Your task to perform on an android device: turn notification dots on Image 0: 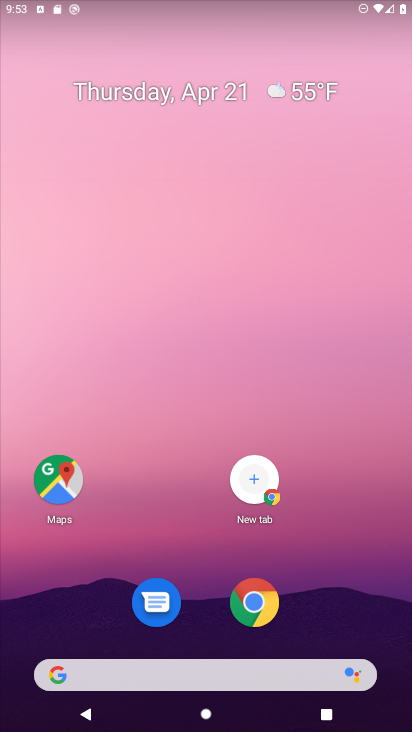
Step 0: drag from (194, 643) to (166, 18)
Your task to perform on an android device: turn notification dots on Image 1: 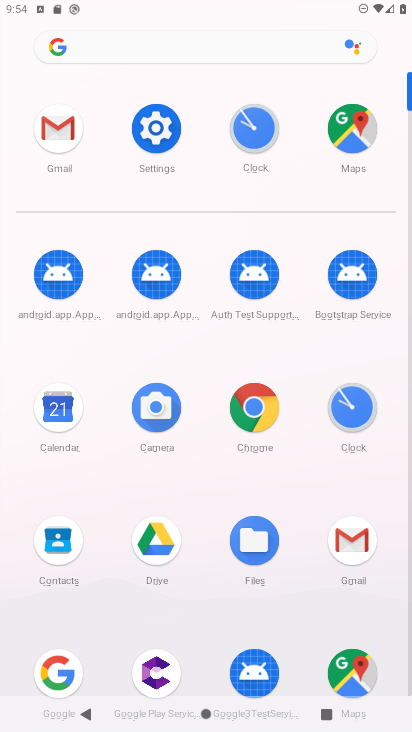
Step 1: click (158, 116)
Your task to perform on an android device: turn notification dots on Image 2: 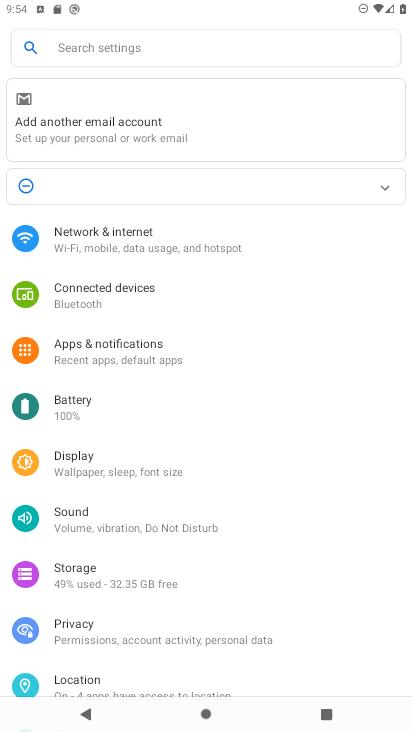
Step 2: click (133, 373)
Your task to perform on an android device: turn notification dots on Image 3: 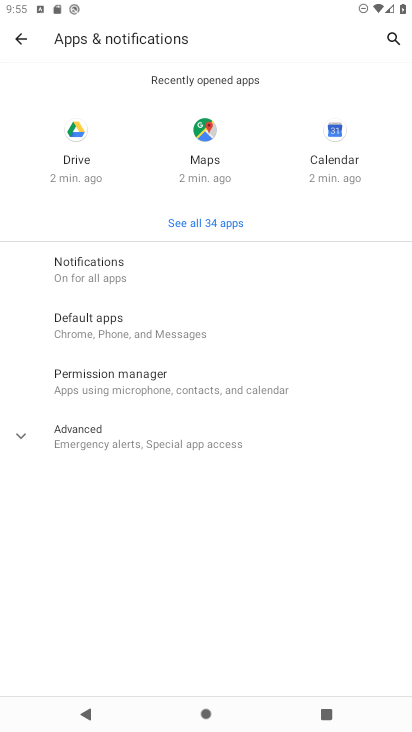
Step 3: click (133, 272)
Your task to perform on an android device: turn notification dots on Image 4: 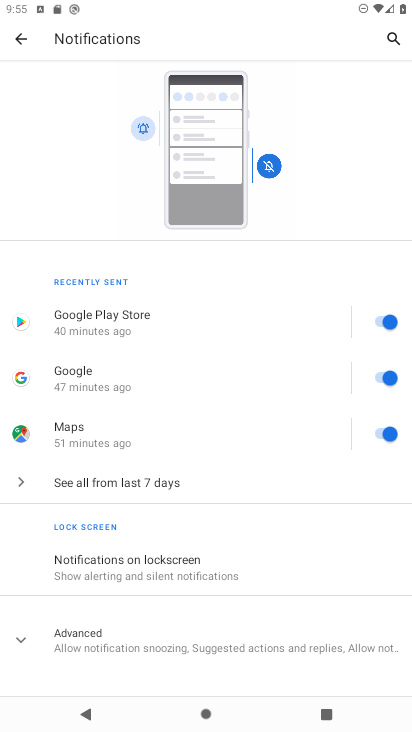
Step 4: drag from (174, 560) to (214, 133)
Your task to perform on an android device: turn notification dots on Image 5: 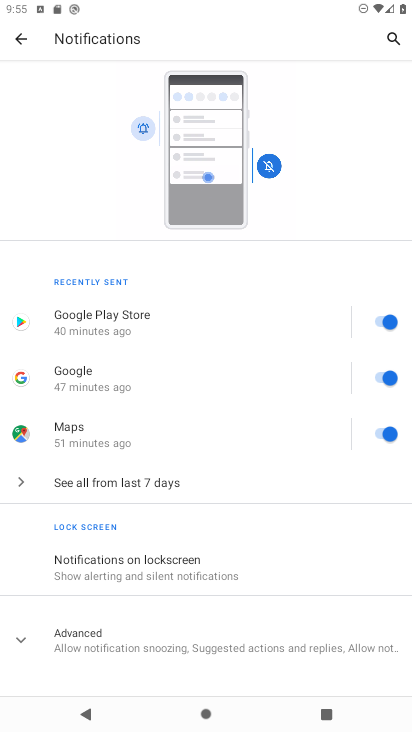
Step 5: click (192, 656)
Your task to perform on an android device: turn notification dots on Image 6: 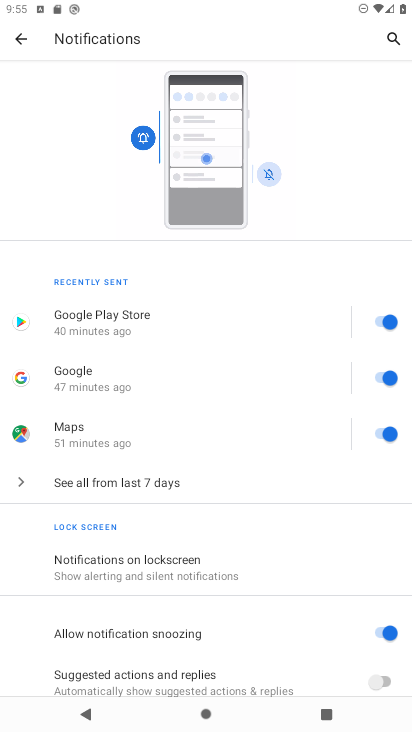
Step 6: task complete